Your task to perform on an android device: See recent photos Image 0: 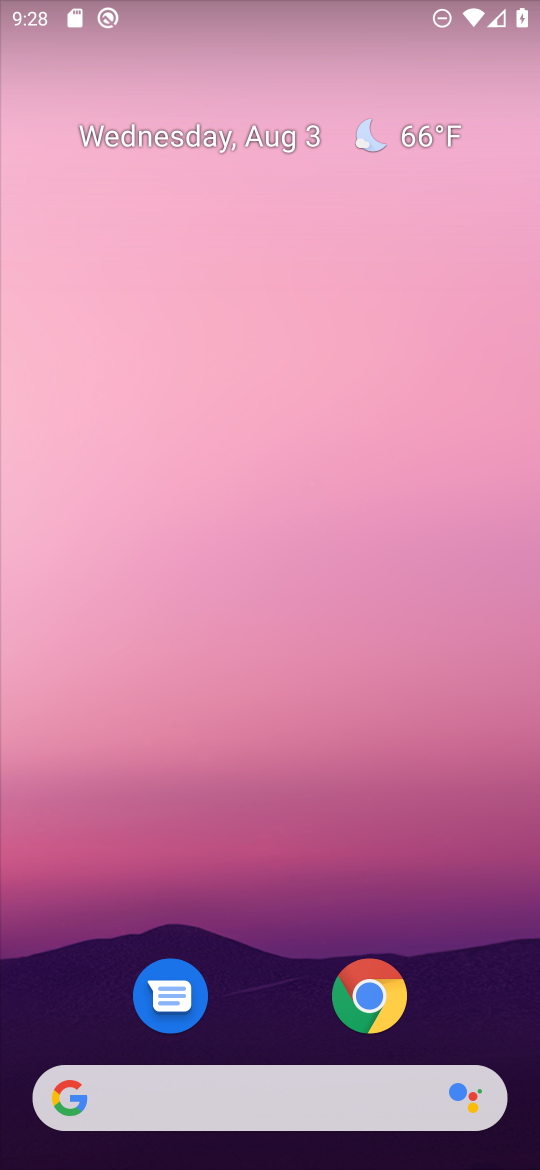
Step 0: drag from (277, 897) to (253, 27)
Your task to perform on an android device: See recent photos Image 1: 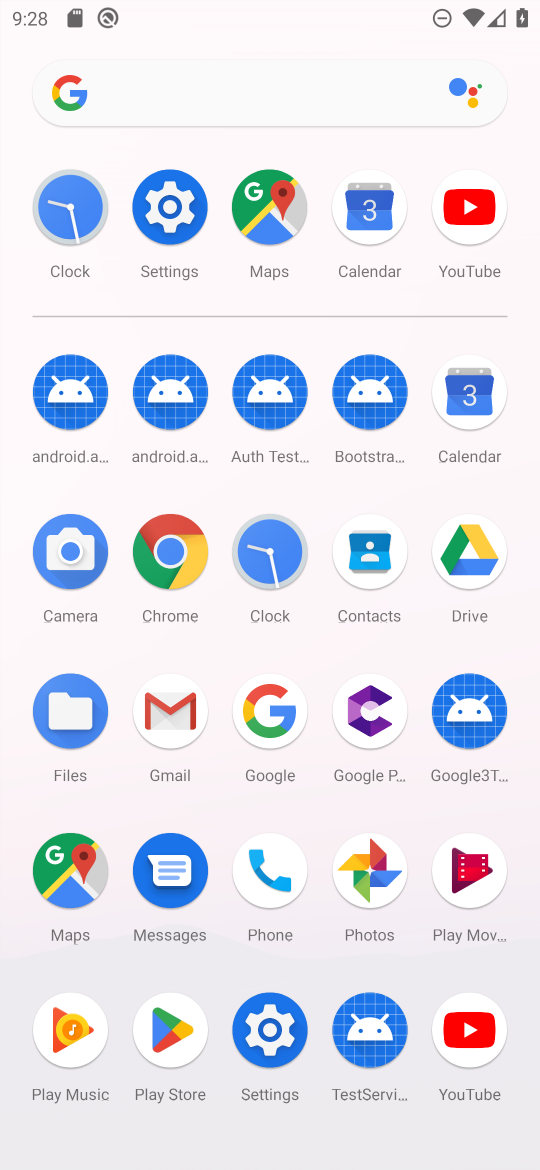
Step 1: click (361, 866)
Your task to perform on an android device: See recent photos Image 2: 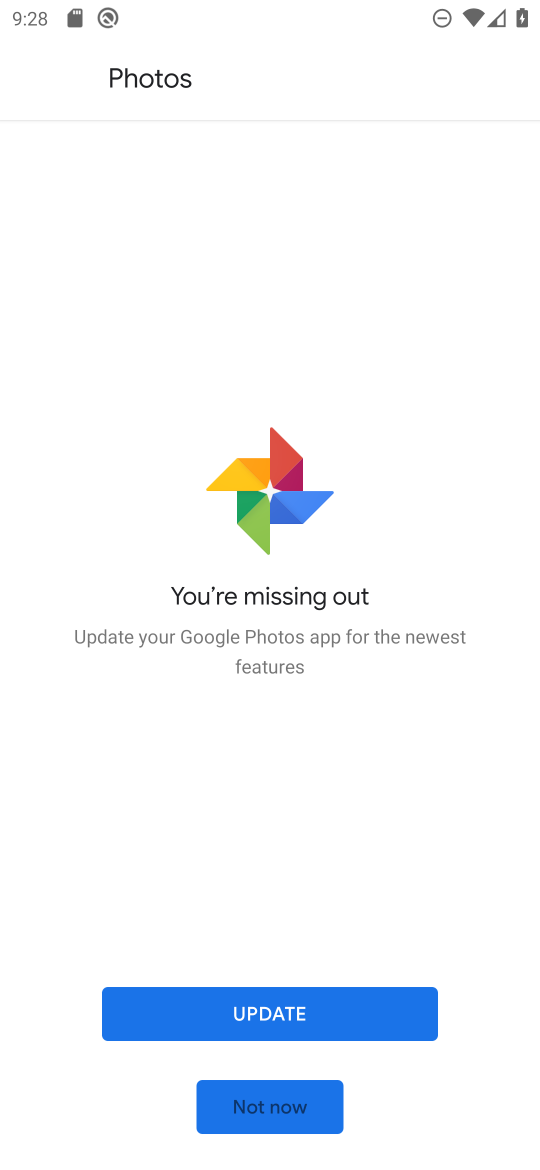
Step 2: click (323, 1095)
Your task to perform on an android device: See recent photos Image 3: 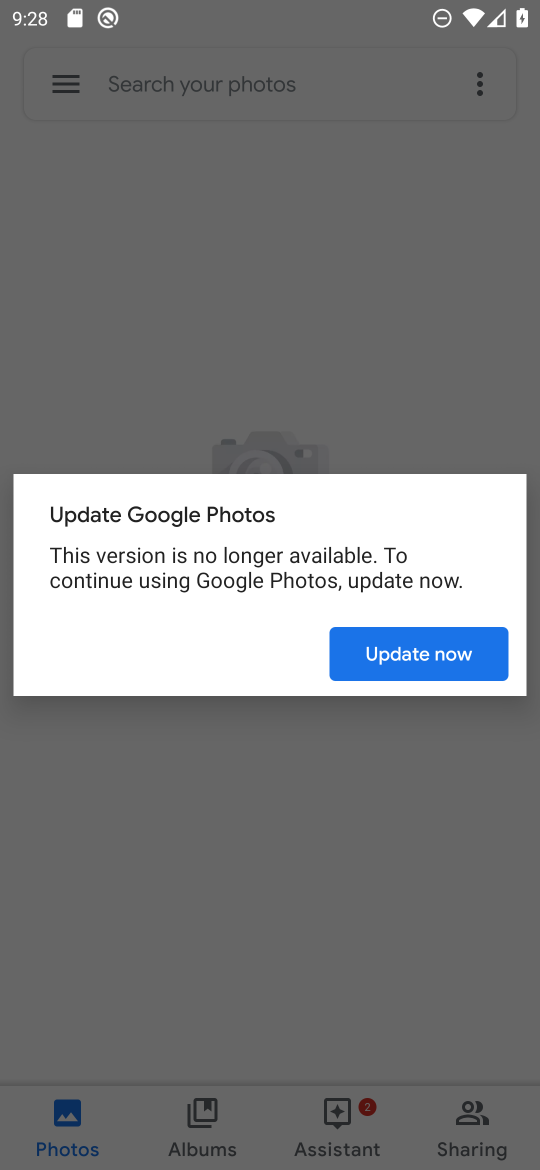
Step 3: click (435, 656)
Your task to perform on an android device: See recent photos Image 4: 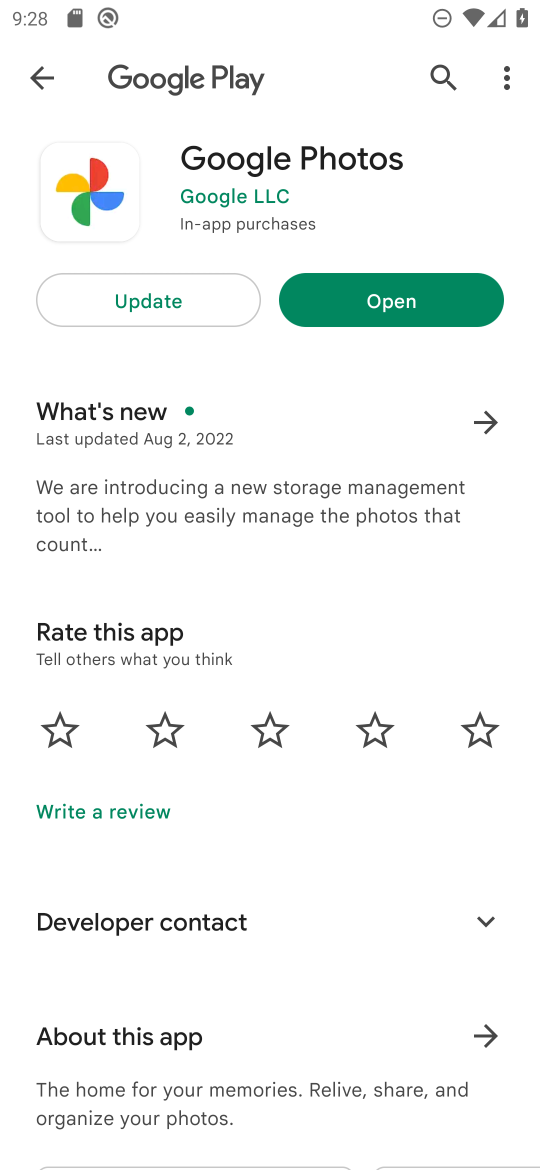
Step 4: click (420, 285)
Your task to perform on an android device: See recent photos Image 5: 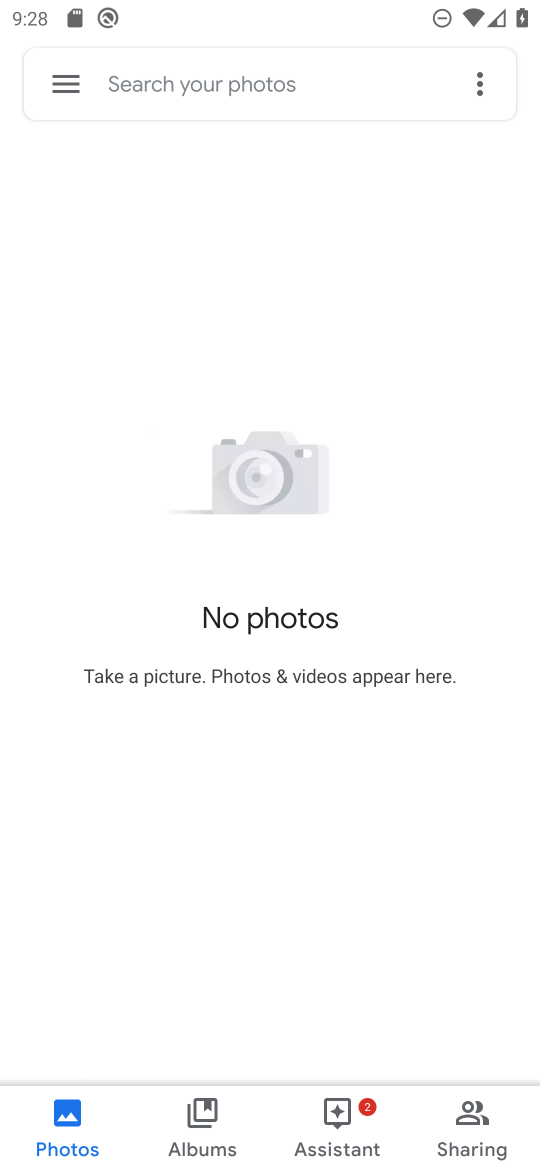
Step 5: task complete